Your task to perform on an android device: What's on my calendar tomorrow? Image 0: 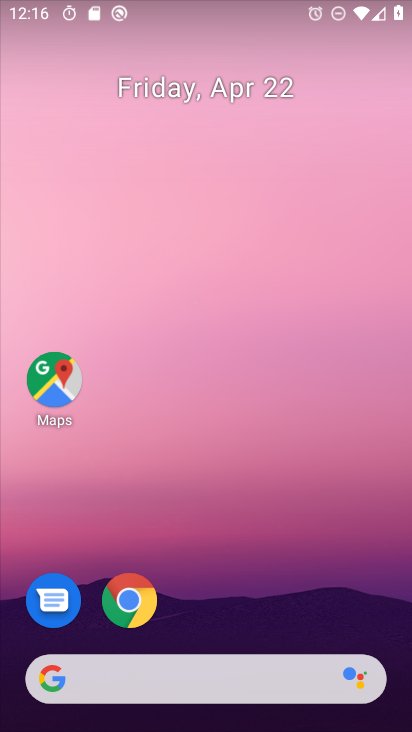
Step 0: drag from (252, 583) to (223, 2)
Your task to perform on an android device: What's on my calendar tomorrow? Image 1: 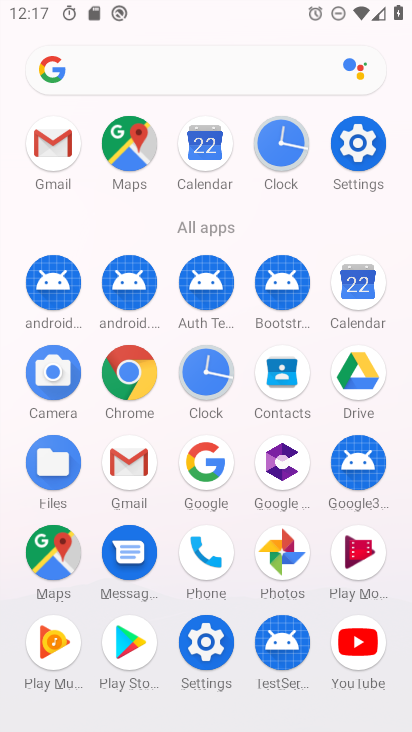
Step 1: click (362, 287)
Your task to perform on an android device: What's on my calendar tomorrow? Image 2: 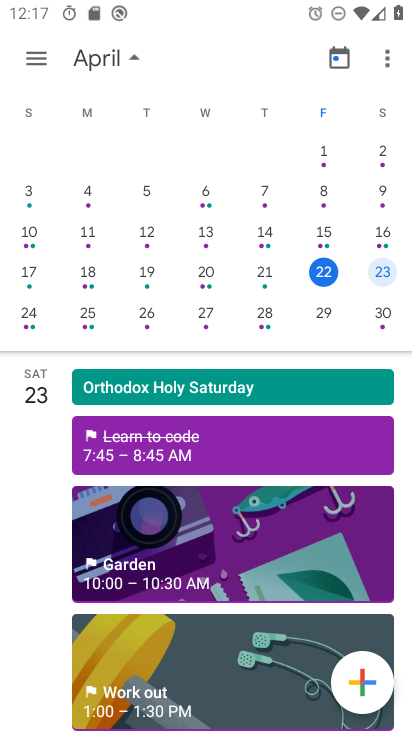
Step 2: click (381, 277)
Your task to perform on an android device: What's on my calendar tomorrow? Image 3: 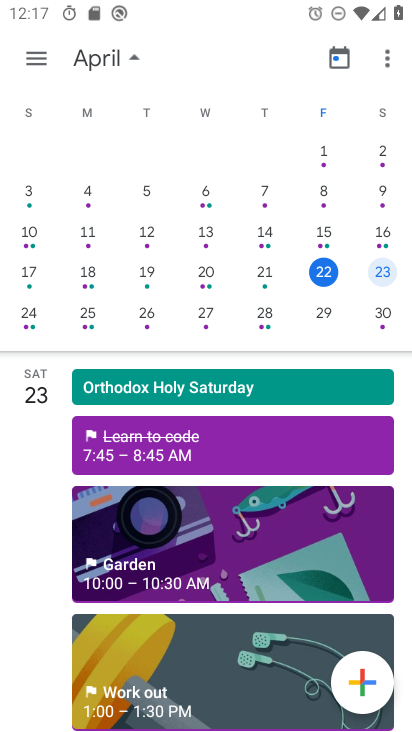
Step 3: task complete